Your task to perform on an android device: Open sound settings Image 0: 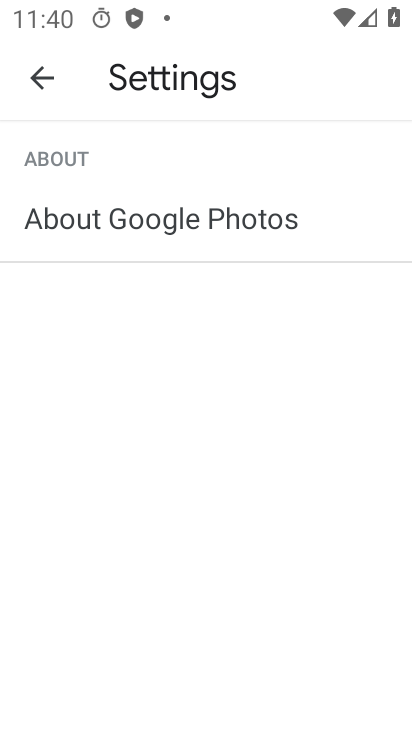
Step 0: press home button
Your task to perform on an android device: Open sound settings Image 1: 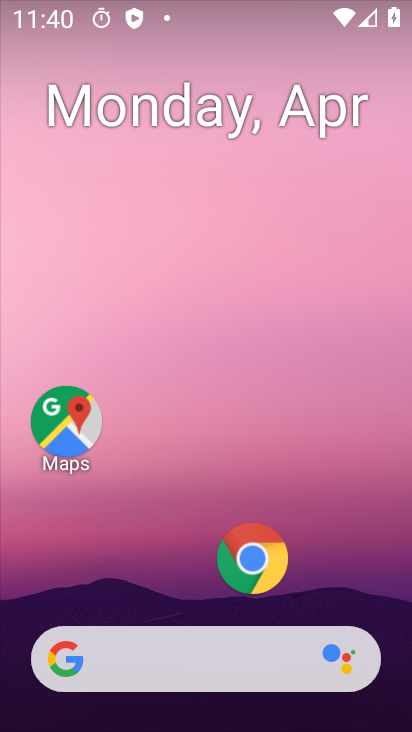
Step 1: drag from (149, 613) to (199, 118)
Your task to perform on an android device: Open sound settings Image 2: 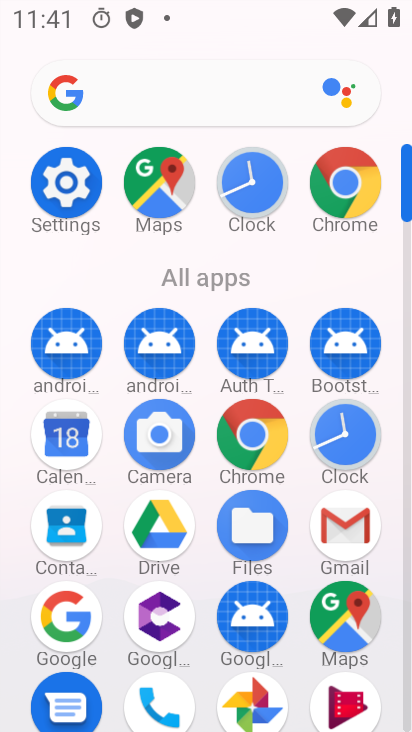
Step 2: drag from (202, 687) to (193, 438)
Your task to perform on an android device: Open sound settings Image 3: 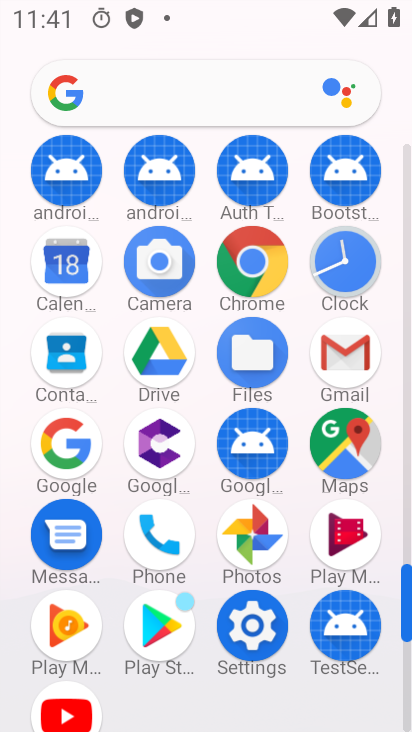
Step 3: click (258, 632)
Your task to perform on an android device: Open sound settings Image 4: 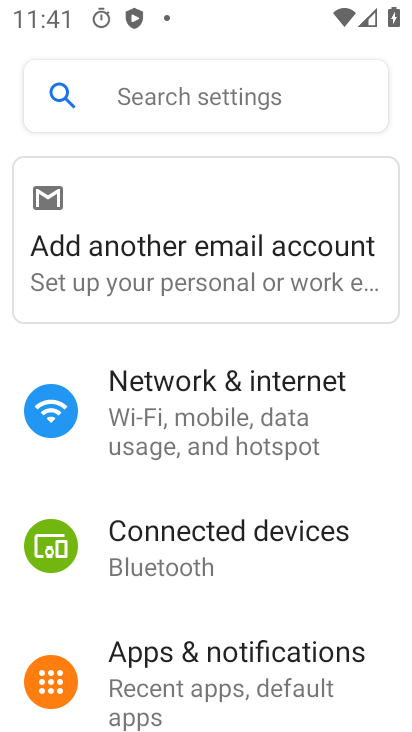
Step 4: drag from (239, 635) to (244, 359)
Your task to perform on an android device: Open sound settings Image 5: 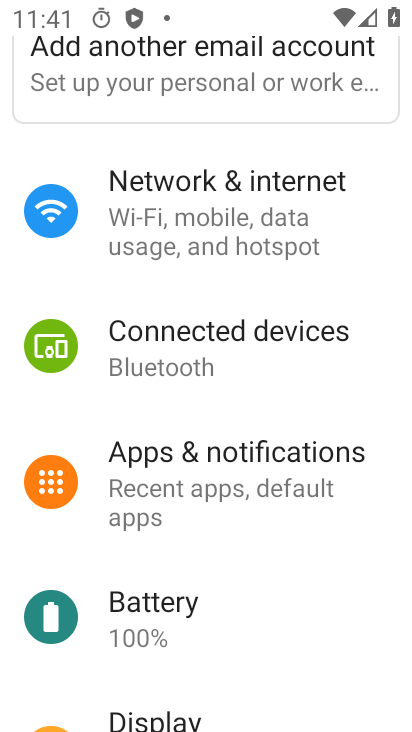
Step 5: drag from (220, 645) to (285, 216)
Your task to perform on an android device: Open sound settings Image 6: 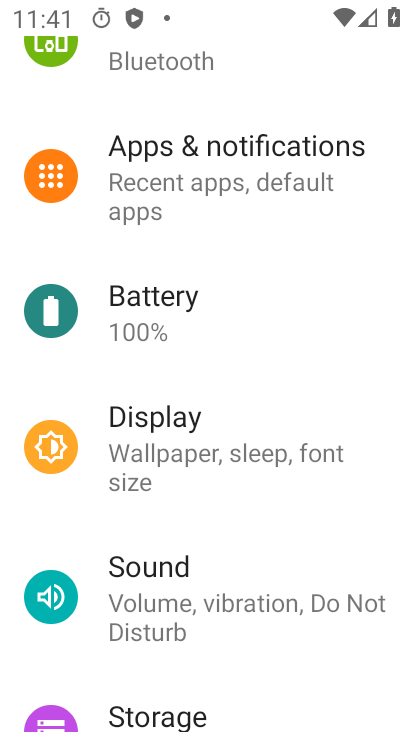
Step 6: click (172, 610)
Your task to perform on an android device: Open sound settings Image 7: 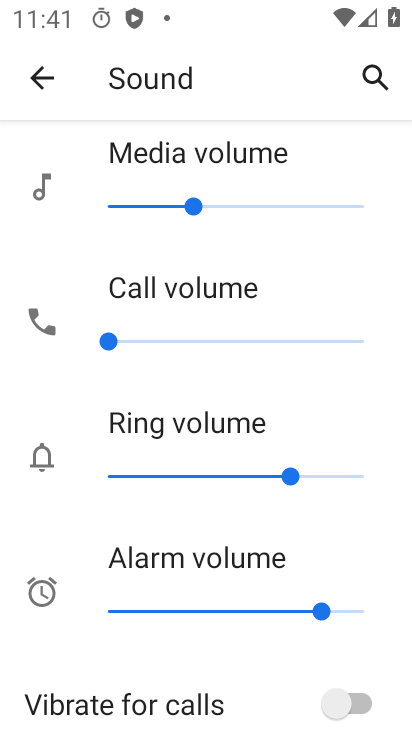
Step 7: task complete